Your task to perform on an android device: Open my contact list Image 0: 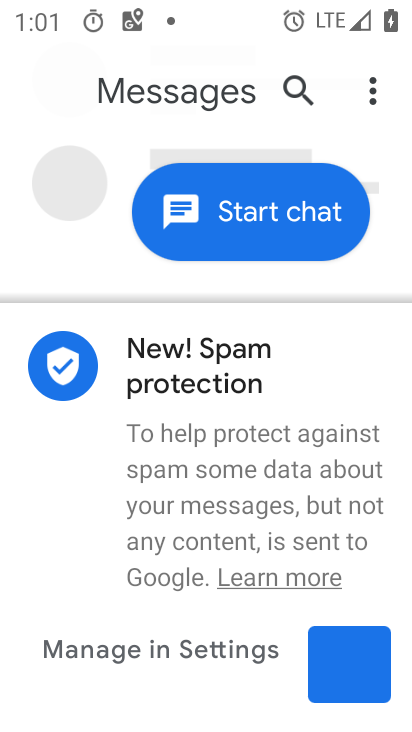
Step 0: press home button
Your task to perform on an android device: Open my contact list Image 1: 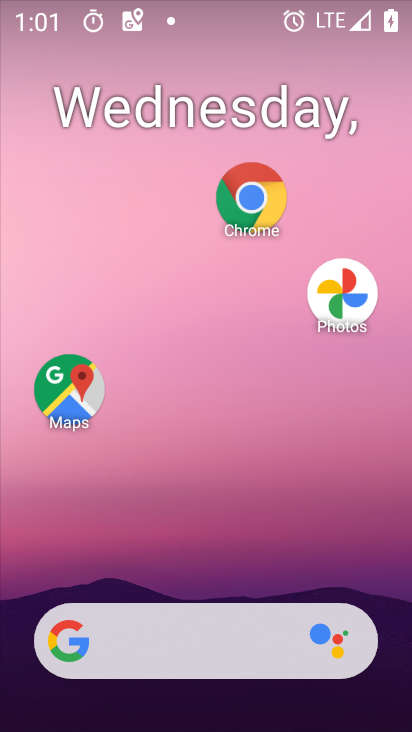
Step 1: drag from (231, 708) to (305, 9)
Your task to perform on an android device: Open my contact list Image 2: 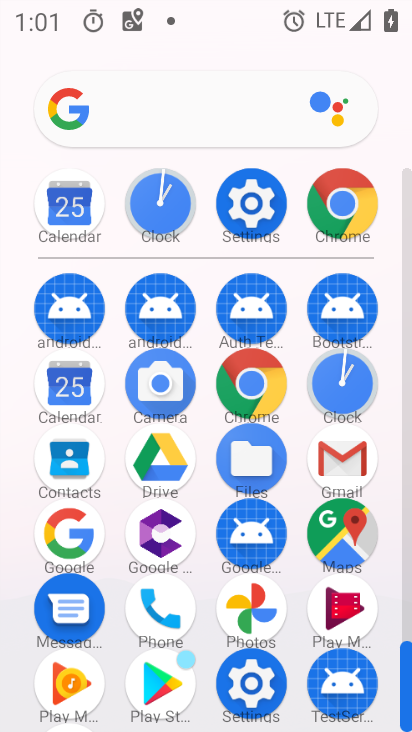
Step 2: click (70, 480)
Your task to perform on an android device: Open my contact list Image 3: 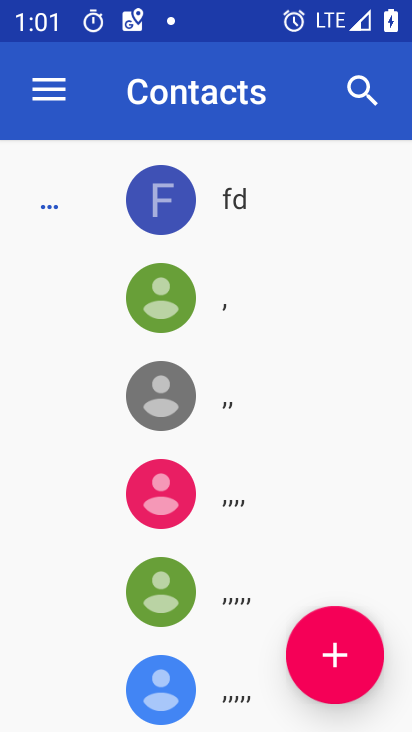
Step 3: task complete